Your task to perform on an android device: Show me recent news Image 0: 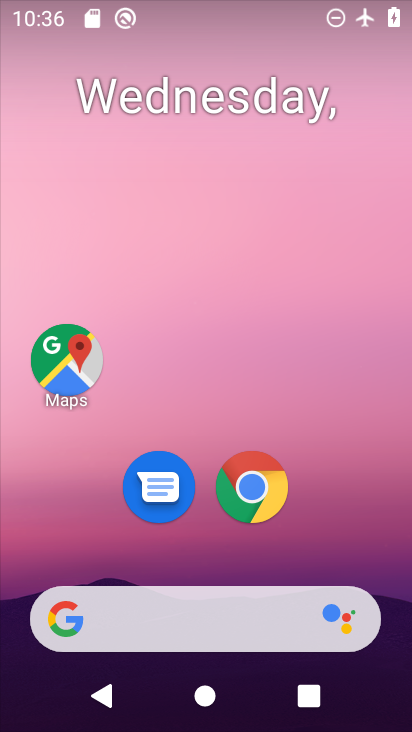
Step 0: drag from (5, 213) to (356, 514)
Your task to perform on an android device: Show me recent news Image 1: 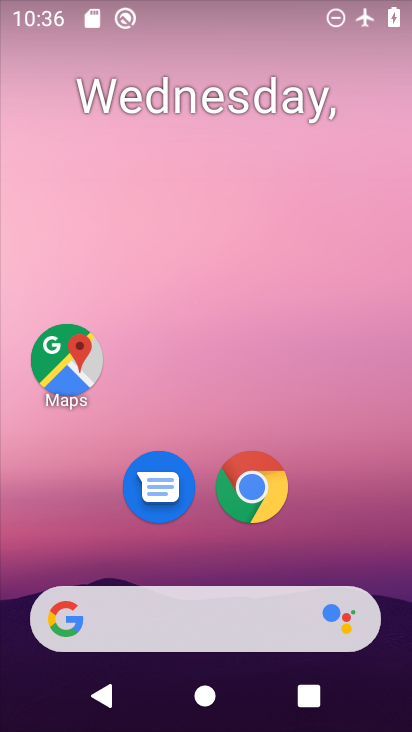
Step 1: drag from (39, 194) to (373, 622)
Your task to perform on an android device: Show me recent news Image 2: 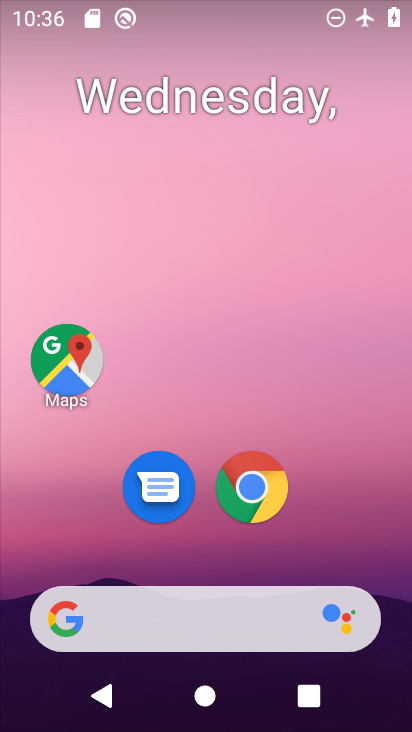
Step 2: drag from (3, 226) to (404, 432)
Your task to perform on an android device: Show me recent news Image 3: 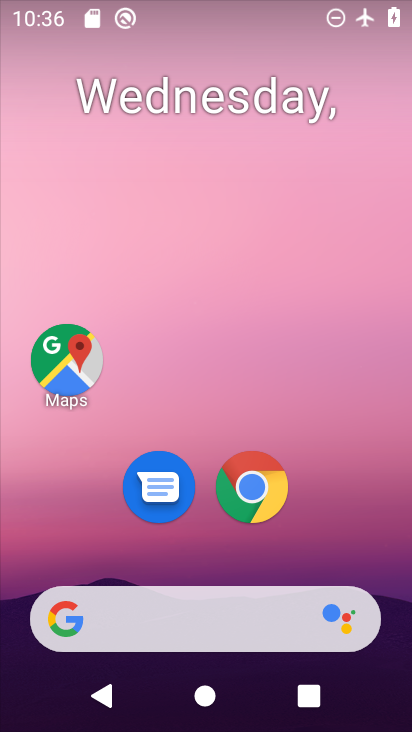
Step 3: click (128, 621)
Your task to perform on an android device: Show me recent news Image 4: 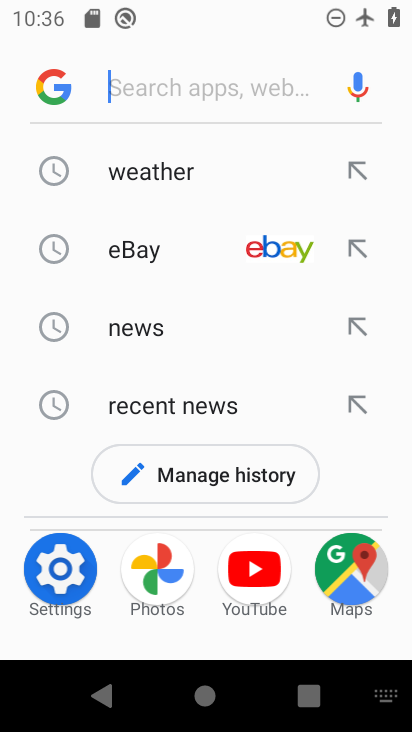
Step 4: click (132, 324)
Your task to perform on an android device: Show me recent news Image 5: 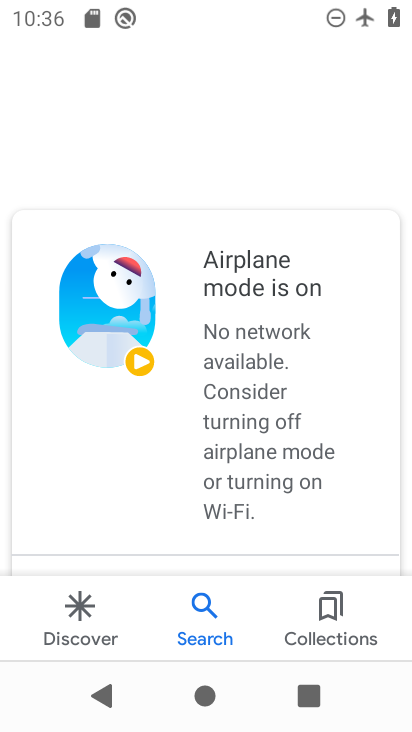
Step 5: task complete